Your task to perform on an android device: Set the phone to "Do not disturb". Image 0: 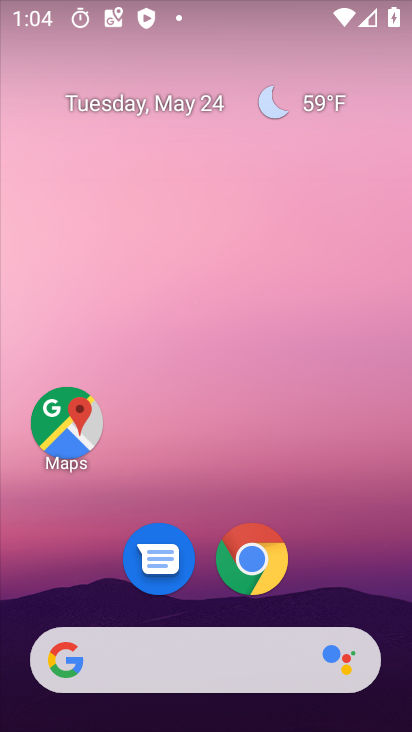
Step 0: drag from (390, 695) to (324, 75)
Your task to perform on an android device: Set the phone to "Do not disturb". Image 1: 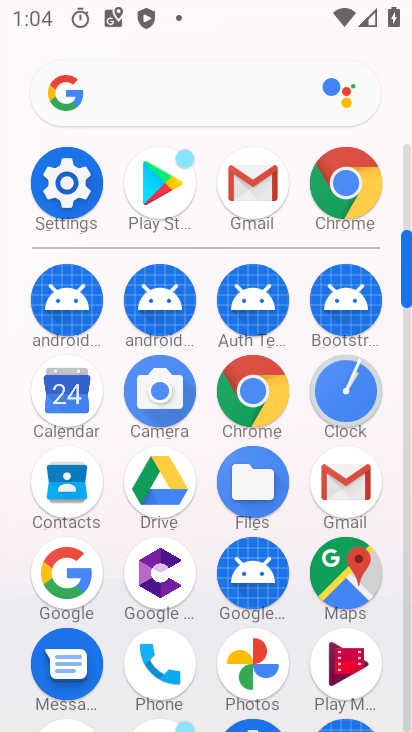
Step 1: click (82, 157)
Your task to perform on an android device: Set the phone to "Do not disturb". Image 2: 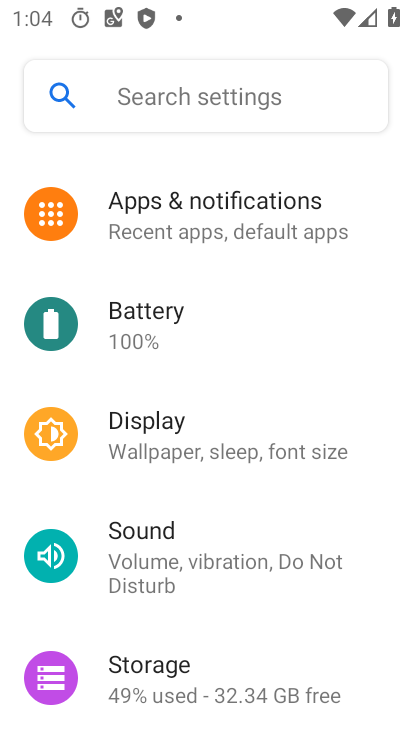
Step 2: click (155, 560)
Your task to perform on an android device: Set the phone to "Do not disturb". Image 3: 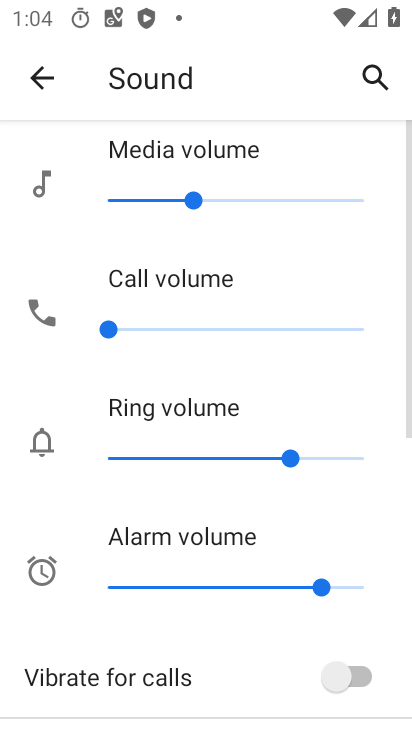
Step 3: drag from (237, 685) to (248, 273)
Your task to perform on an android device: Set the phone to "Do not disturb". Image 4: 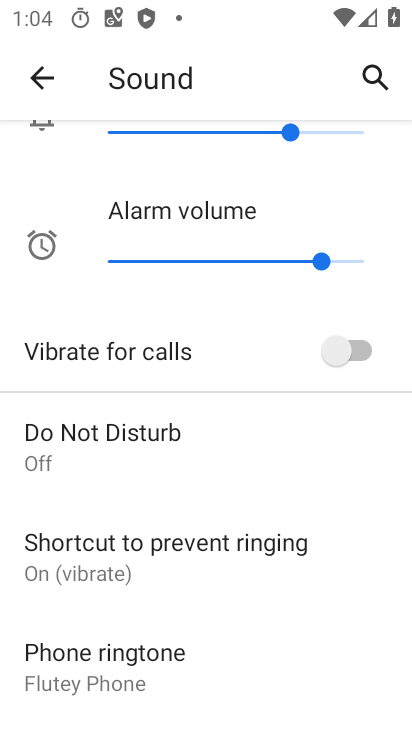
Step 4: click (26, 458)
Your task to perform on an android device: Set the phone to "Do not disturb". Image 5: 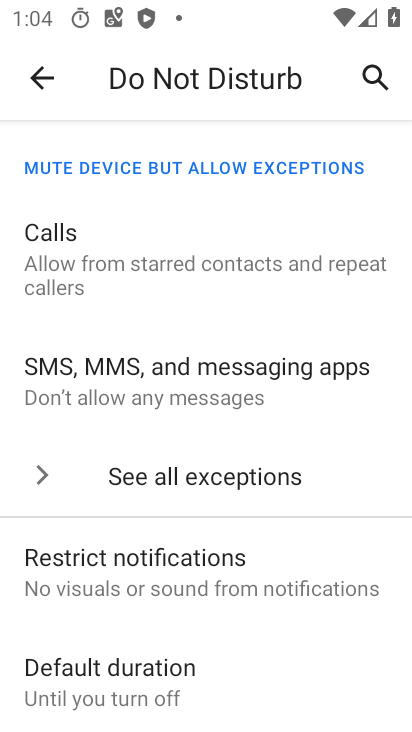
Step 5: click (292, 208)
Your task to perform on an android device: Set the phone to "Do not disturb". Image 6: 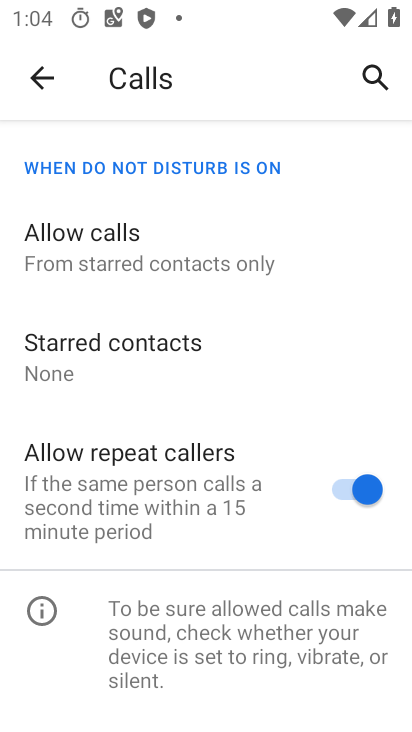
Step 6: click (27, 87)
Your task to perform on an android device: Set the phone to "Do not disturb". Image 7: 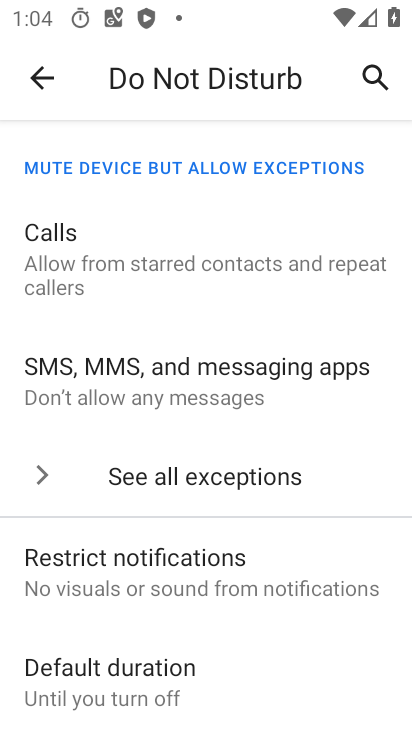
Step 7: drag from (279, 211) to (262, 112)
Your task to perform on an android device: Set the phone to "Do not disturb". Image 8: 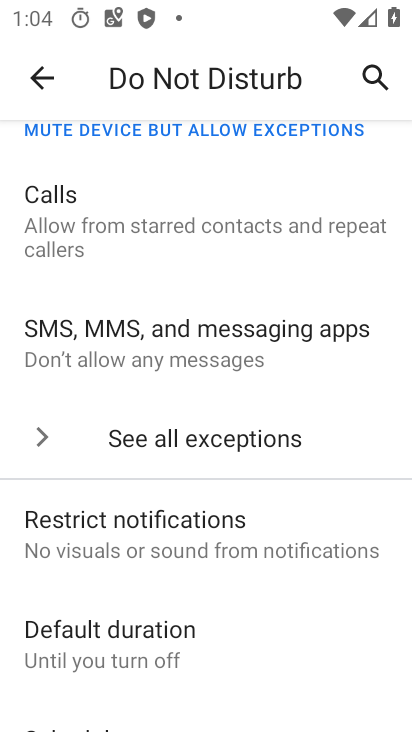
Step 8: drag from (277, 667) to (272, 99)
Your task to perform on an android device: Set the phone to "Do not disturb". Image 9: 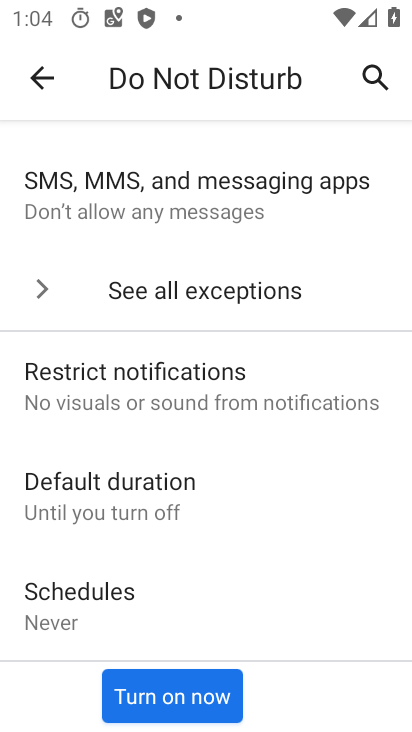
Step 9: click (159, 707)
Your task to perform on an android device: Set the phone to "Do not disturb". Image 10: 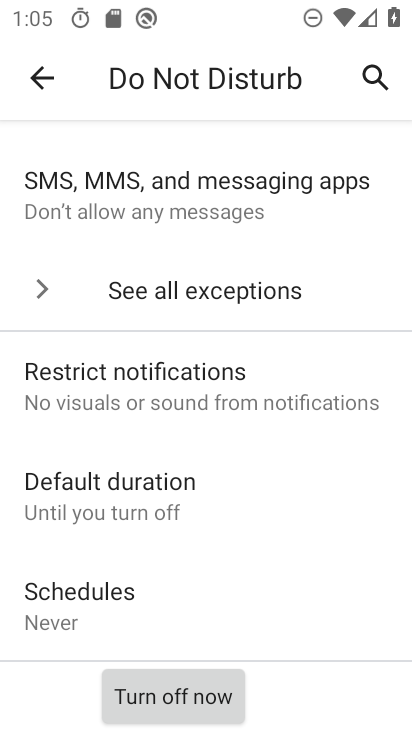
Step 10: task complete